Your task to perform on an android device: turn off location history Image 0: 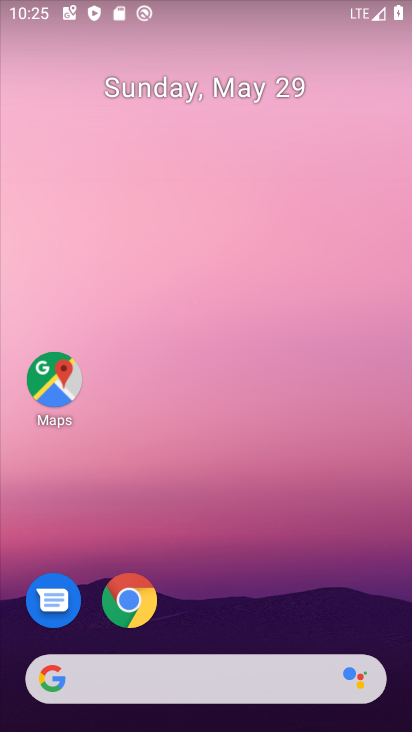
Step 0: drag from (291, 629) to (210, 53)
Your task to perform on an android device: turn off location history Image 1: 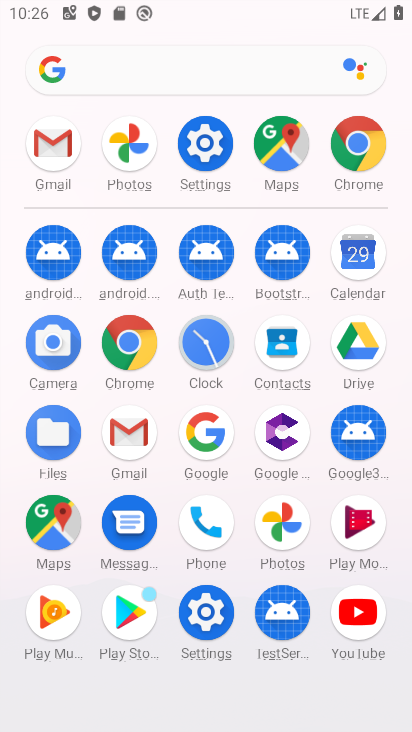
Step 1: click (57, 526)
Your task to perform on an android device: turn off location history Image 2: 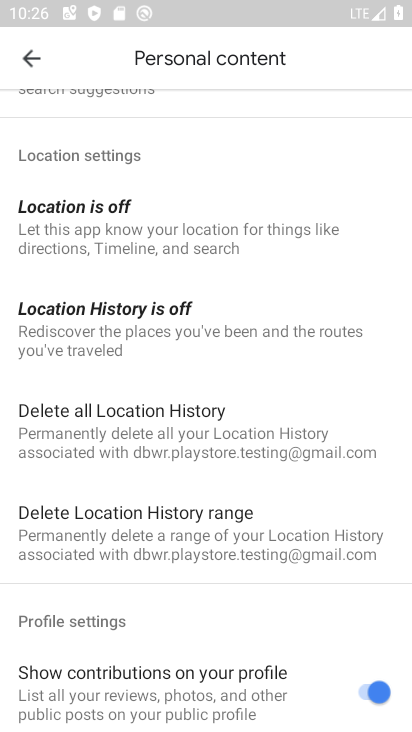
Step 2: click (172, 315)
Your task to perform on an android device: turn off location history Image 3: 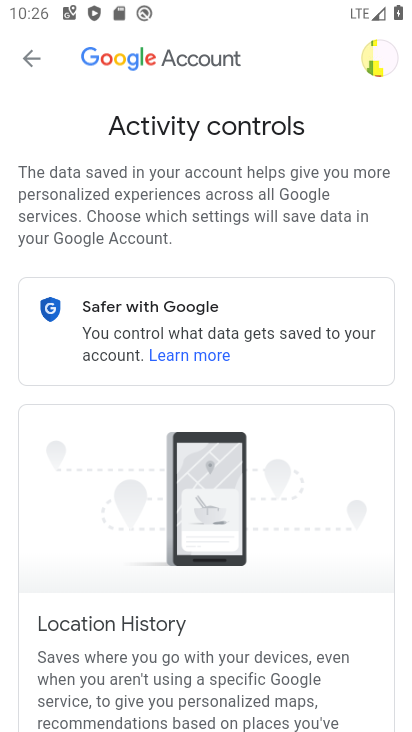
Step 3: task complete